Your task to perform on an android device: Open display settings Image 0: 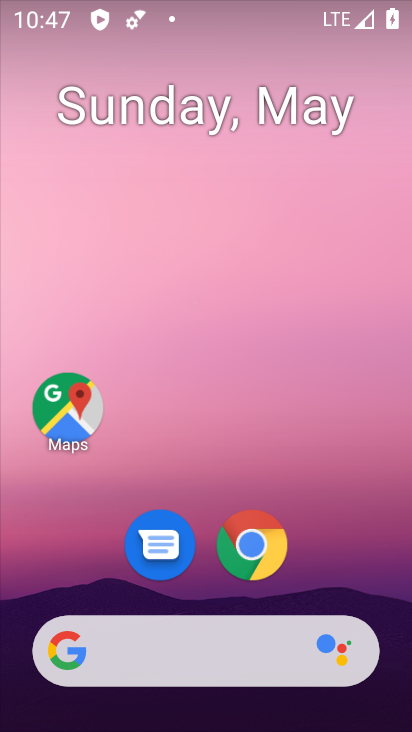
Step 0: drag from (383, 624) to (275, 75)
Your task to perform on an android device: Open display settings Image 1: 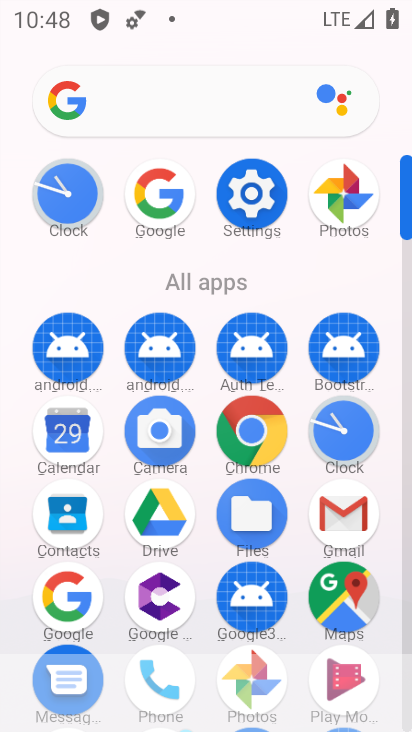
Step 1: click (270, 205)
Your task to perform on an android device: Open display settings Image 2: 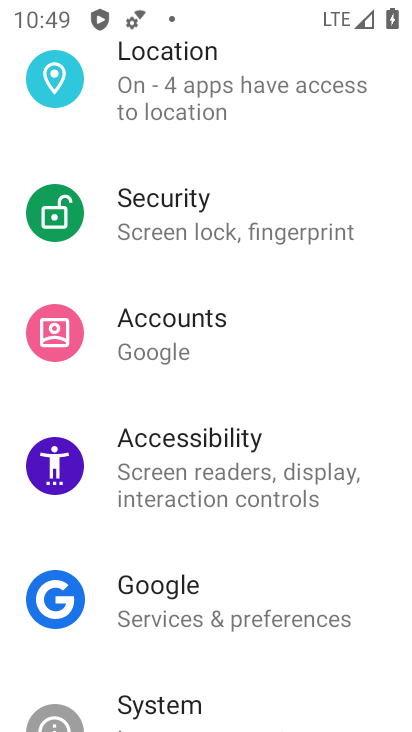
Step 2: drag from (204, 113) to (210, 663)
Your task to perform on an android device: Open display settings Image 3: 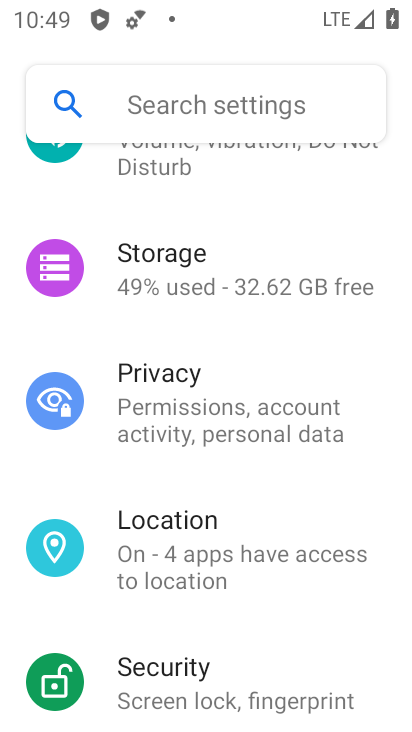
Step 3: drag from (215, 234) to (239, 676)
Your task to perform on an android device: Open display settings Image 4: 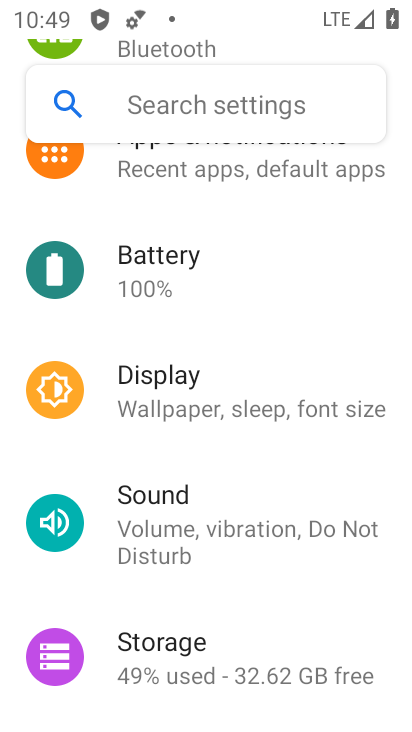
Step 4: click (214, 407)
Your task to perform on an android device: Open display settings Image 5: 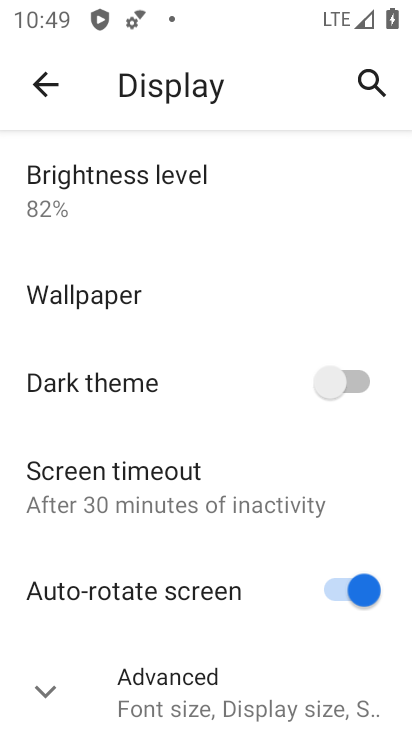
Step 5: task complete